Your task to perform on an android device: turn on priority inbox in the gmail app Image 0: 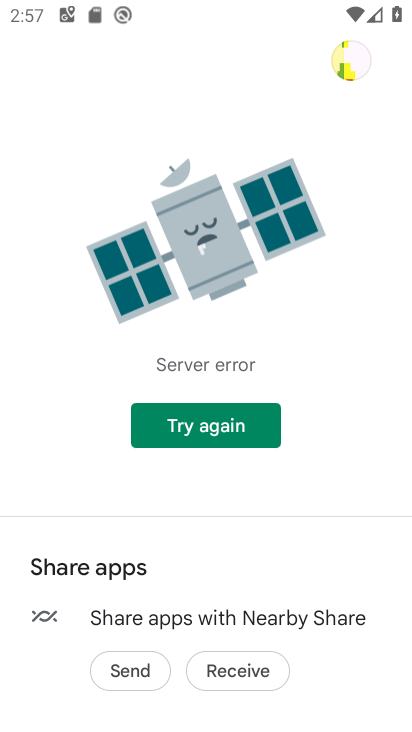
Step 0: press home button
Your task to perform on an android device: turn on priority inbox in the gmail app Image 1: 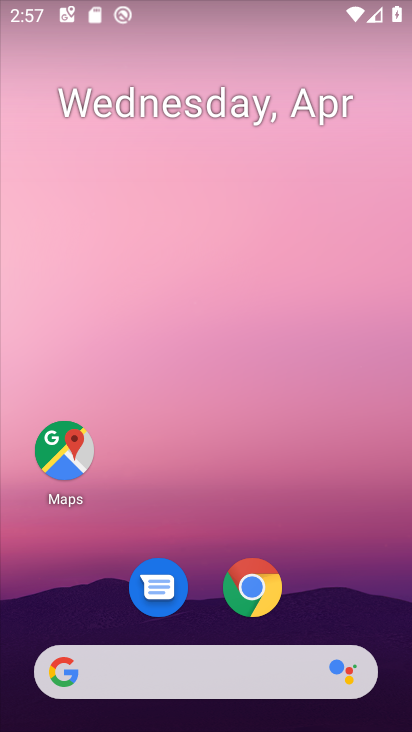
Step 1: drag from (354, 578) to (251, 93)
Your task to perform on an android device: turn on priority inbox in the gmail app Image 2: 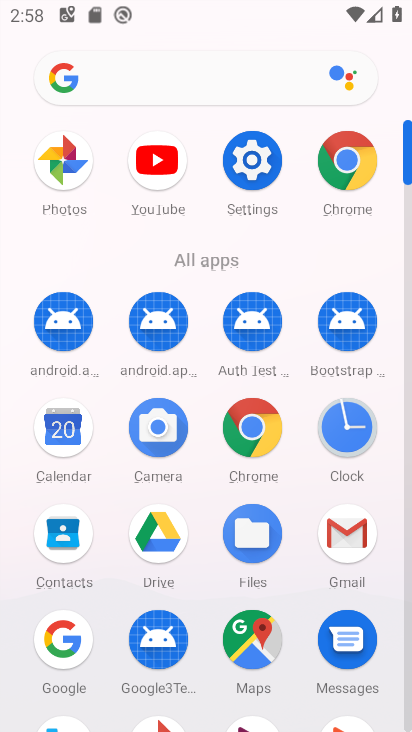
Step 2: click (341, 540)
Your task to perform on an android device: turn on priority inbox in the gmail app Image 3: 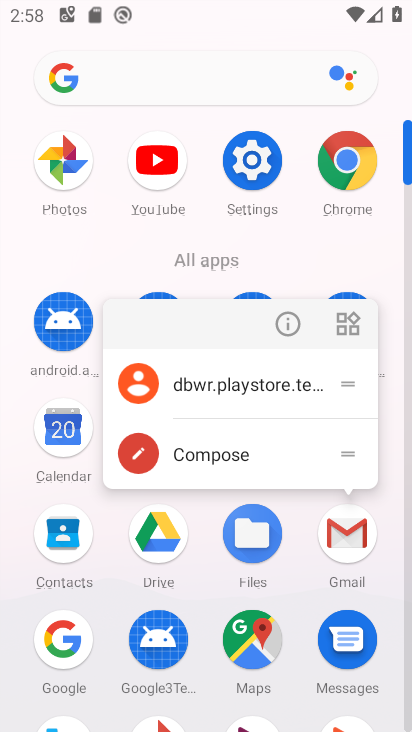
Step 3: click (339, 538)
Your task to perform on an android device: turn on priority inbox in the gmail app Image 4: 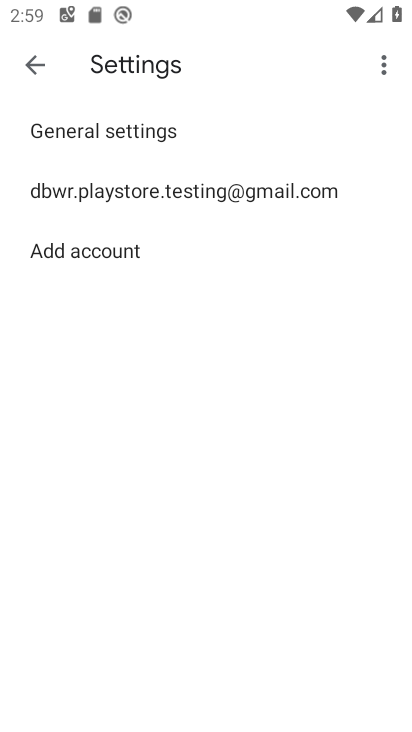
Step 4: click (216, 190)
Your task to perform on an android device: turn on priority inbox in the gmail app Image 5: 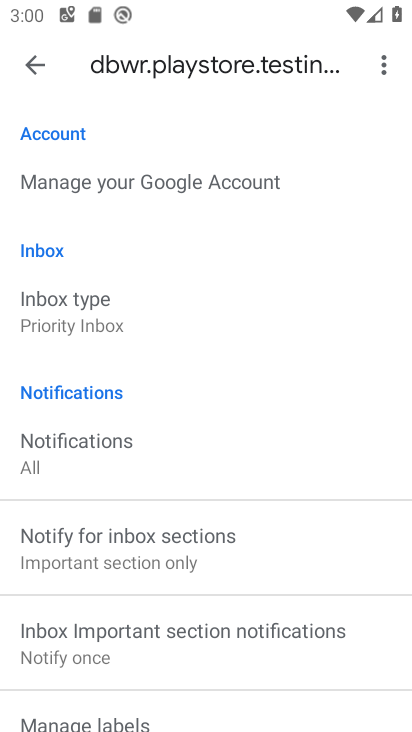
Step 5: drag from (141, 604) to (222, 154)
Your task to perform on an android device: turn on priority inbox in the gmail app Image 6: 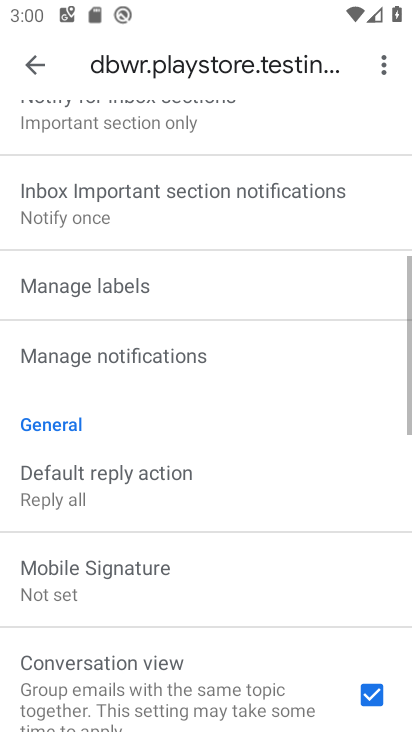
Step 6: drag from (226, 224) to (230, 586)
Your task to perform on an android device: turn on priority inbox in the gmail app Image 7: 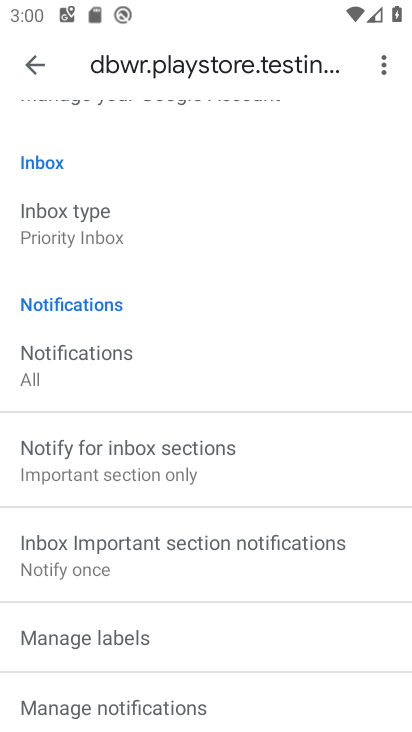
Step 7: click (174, 239)
Your task to perform on an android device: turn on priority inbox in the gmail app Image 8: 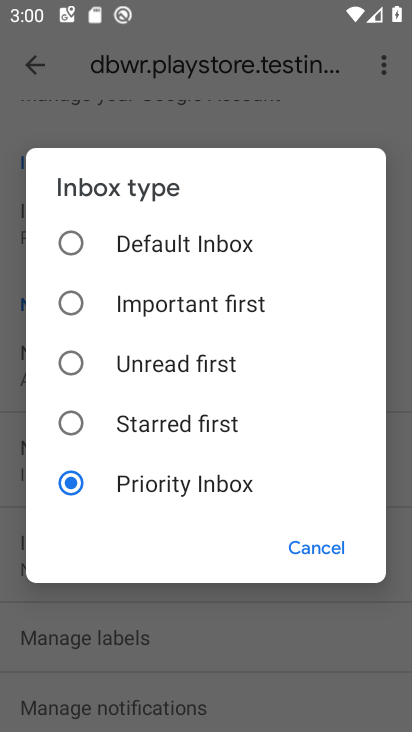
Step 8: task complete